Your task to perform on an android device: open app "Adobe Acrobat Reader" (install if not already installed) and enter user name: "nondescriptly@inbox.com" and password: "negating" Image 0: 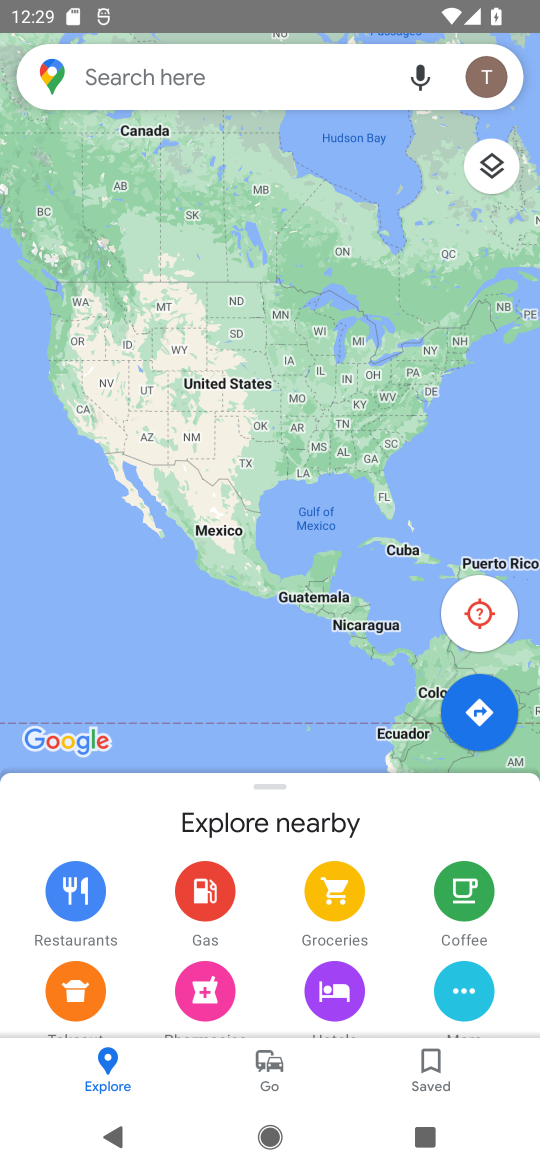
Step 0: press back button
Your task to perform on an android device: open app "Adobe Acrobat Reader" (install if not already installed) and enter user name: "nondescriptly@inbox.com" and password: "negating" Image 1: 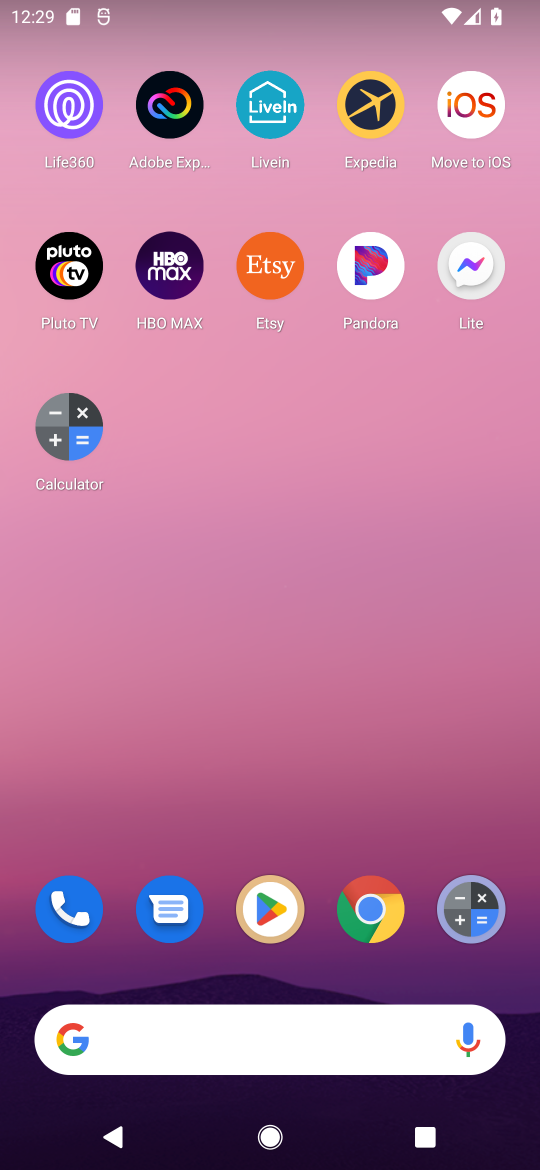
Step 1: click (258, 904)
Your task to perform on an android device: open app "Adobe Acrobat Reader" (install if not already installed) and enter user name: "nondescriptly@inbox.com" and password: "negating" Image 2: 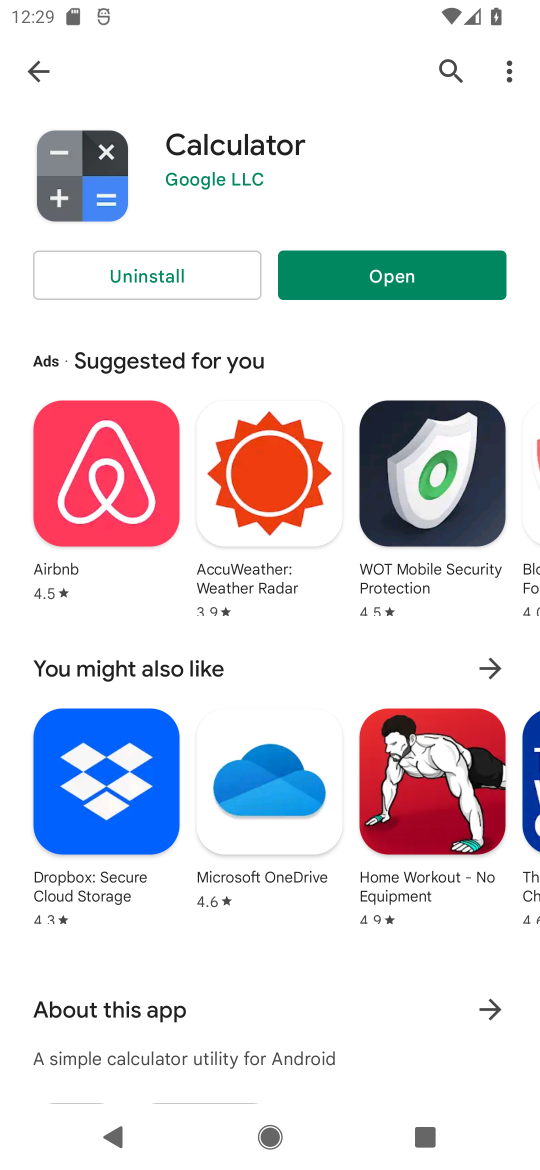
Step 2: click (451, 77)
Your task to perform on an android device: open app "Adobe Acrobat Reader" (install if not already installed) and enter user name: "nondescriptly@inbox.com" and password: "negating" Image 3: 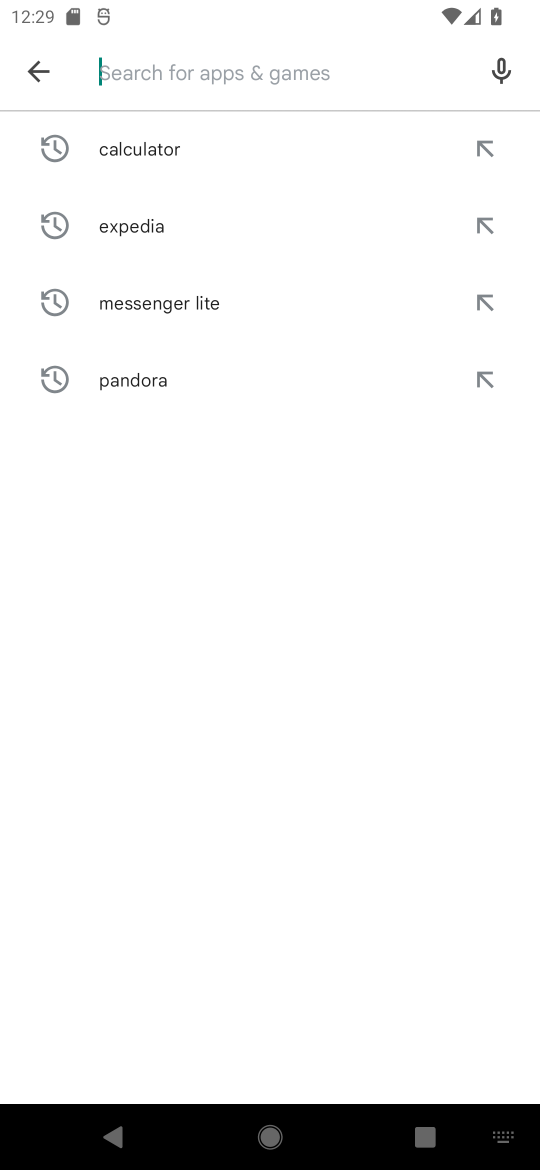
Step 3: click (166, 74)
Your task to perform on an android device: open app "Adobe Acrobat Reader" (install if not already installed) and enter user name: "nondescriptly@inbox.com" and password: "negating" Image 4: 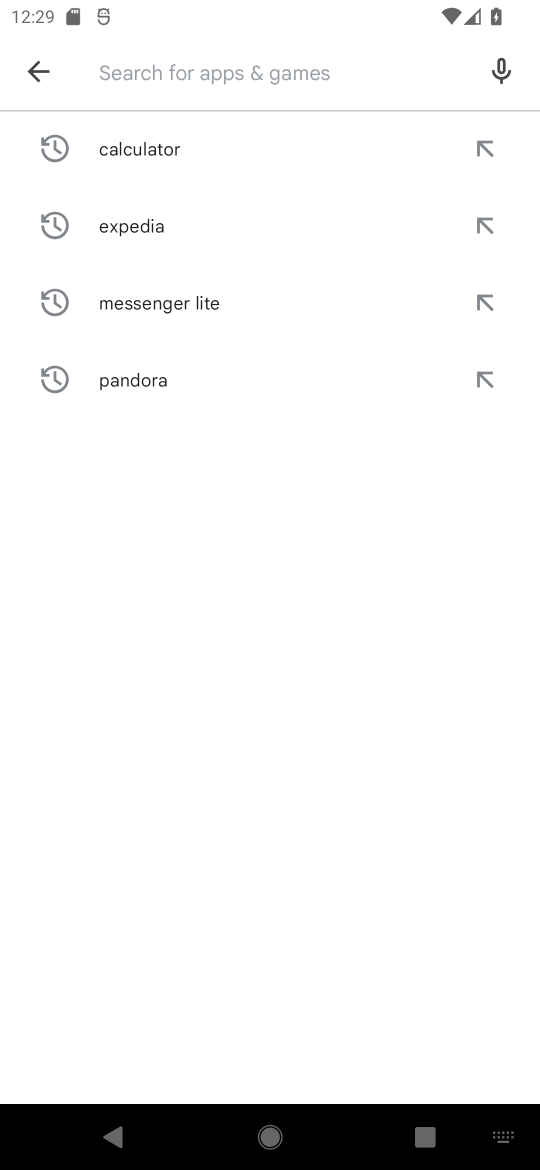
Step 4: type "Adobe Acrobat Reader"
Your task to perform on an android device: open app "Adobe Acrobat Reader" (install if not already installed) and enter user name: "nondescriptly@inbox.com" and password: "negating" Image 5: 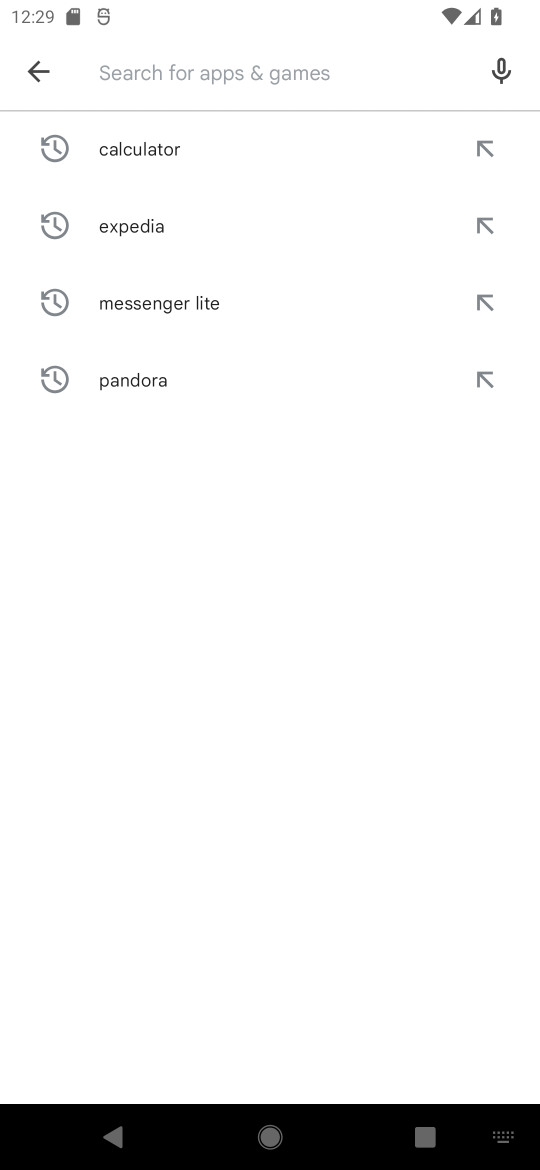
Step 5: click (281, 803)
Your task to perform on an android device: open app "Adobe Acrobat Reader" (install if not already installed) and enter user name: "nondescriptly@inbox.com" and password: "negating" Image 6: 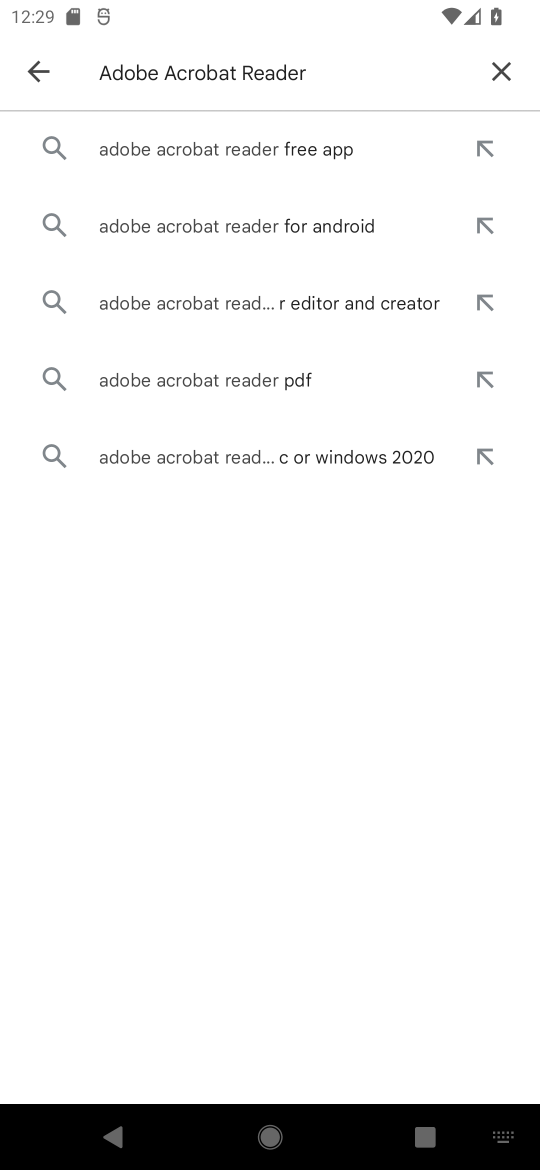
Step 6: click (247, 135)
Your task to perform on an android device: open app "Adobe Acrobat Reader" (install if not already installed) and enter user name: "nondescriptly@inbox.com" and password: "negating" Image 7: 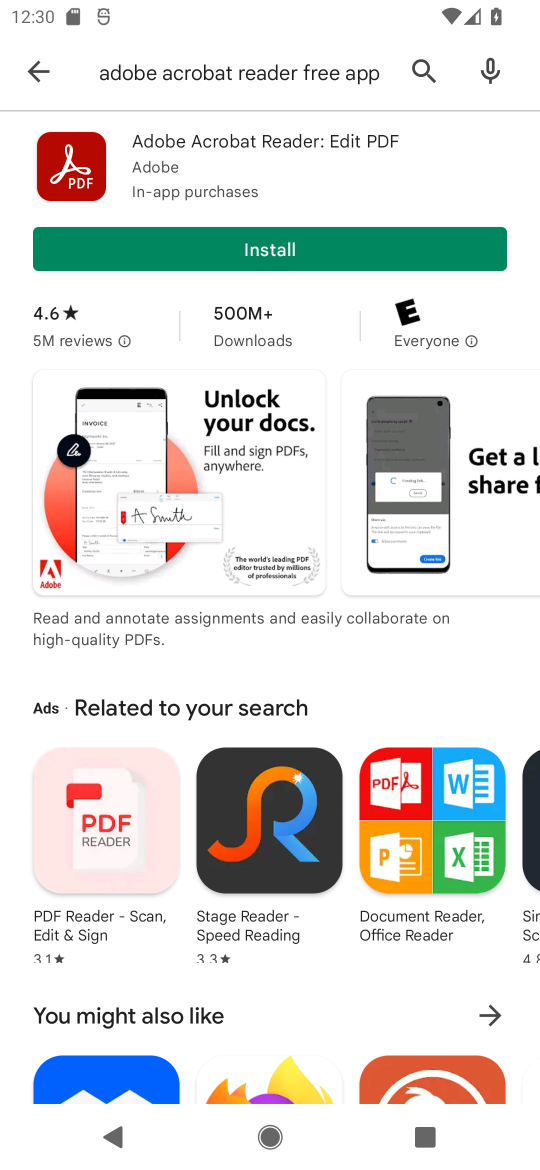
Step 7: click (291, 256)
Your task to perform on an android device: open app "Adobe Acrobat Reader" (install if not already installed) and enter user name: "nondescriptly@inbox.com" and password: "negating" Image 8: 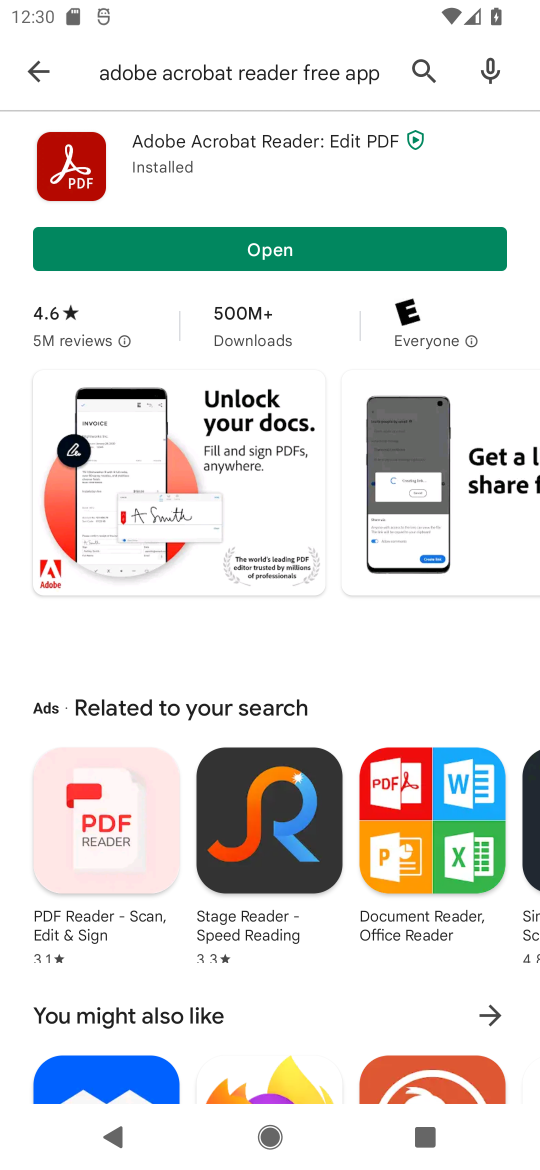
Step 8: click (308, 258)
Your task to perform on an android device: open app "Adobe Acrobat Reader" (install if not already installed) and enter user name: "nondescriptly@inbox.com" and password: "negating" Image 9: 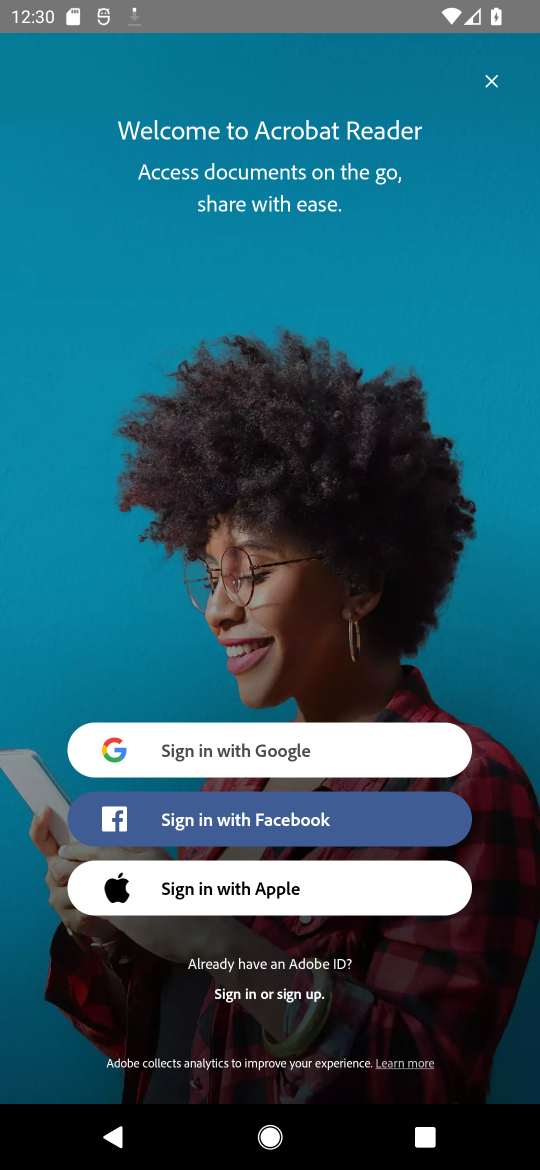
Step 9: click (233, 994)
Your task to perform on an android device: open app "Adobe Acrobat Reader" (install if not already installed) and enter user name: "nondescriptly@inbox.com" and password: "negating" Image 10: 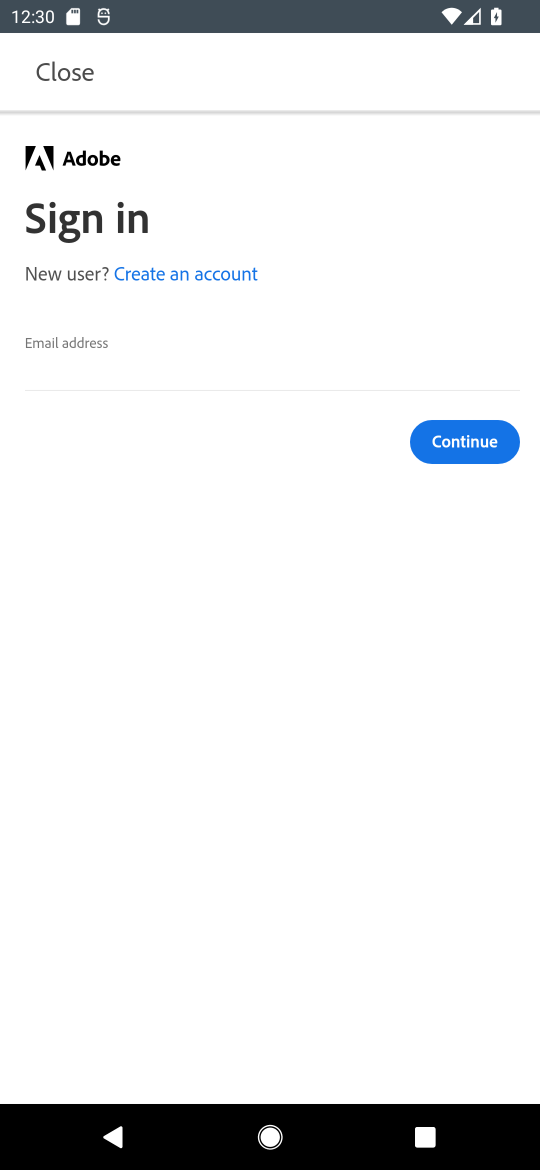
Step 10: click (86, 359)
Your task to perform on an android device: open app "Adobe Acrobat Reader" (install if not already installed) and enter user name: "nondescriptly@inbox.com" and password: "negating" Image 11: 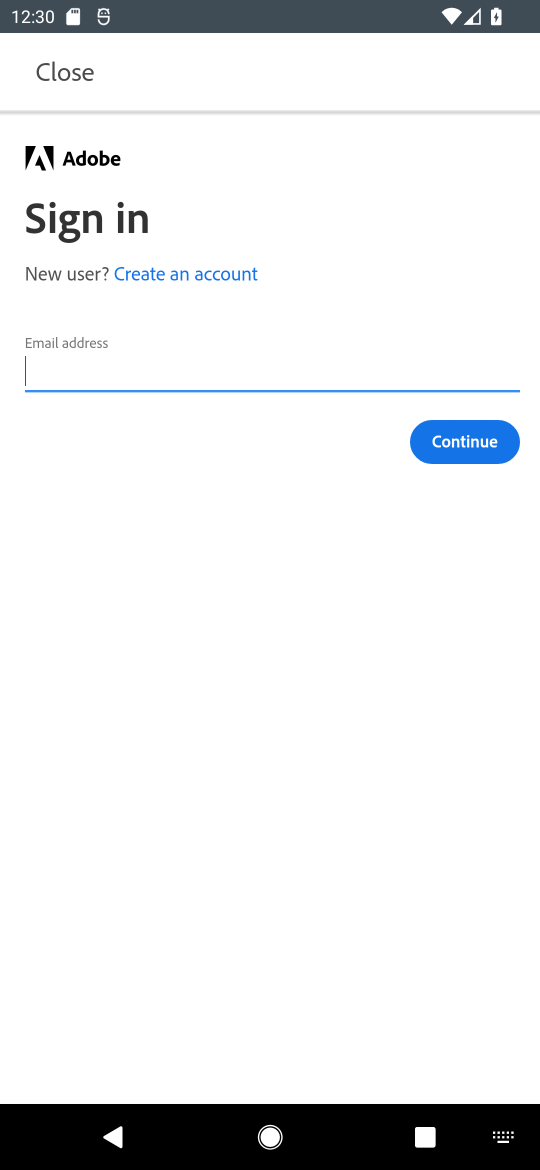
Step 11: type "nondescriptly@inbox.com"
Your task to perform on an android device: open app "Adobe Acrobat Reader" (install if not already installed) and enter user name: "nondescriptly@inbox.com" and password: "negating" Image 12: 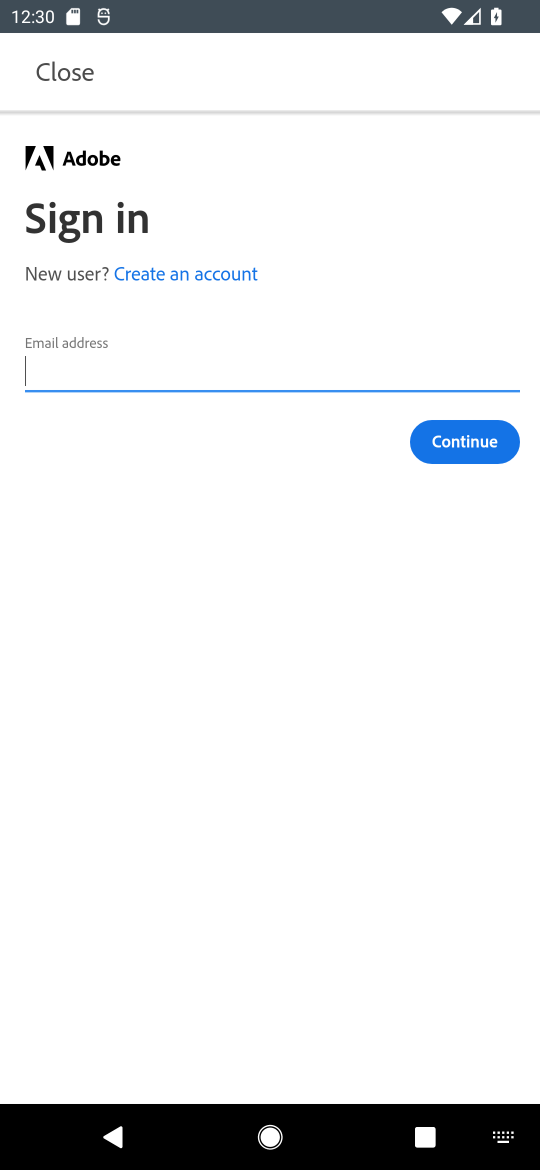
Step 12: click (284, 789)
Your task to perform on an android device: open app "Adobe Acrobat Reader" (install if not already installed) and enter user name: "nondescriptly@inbox.com" and password: "negating" Image 13: 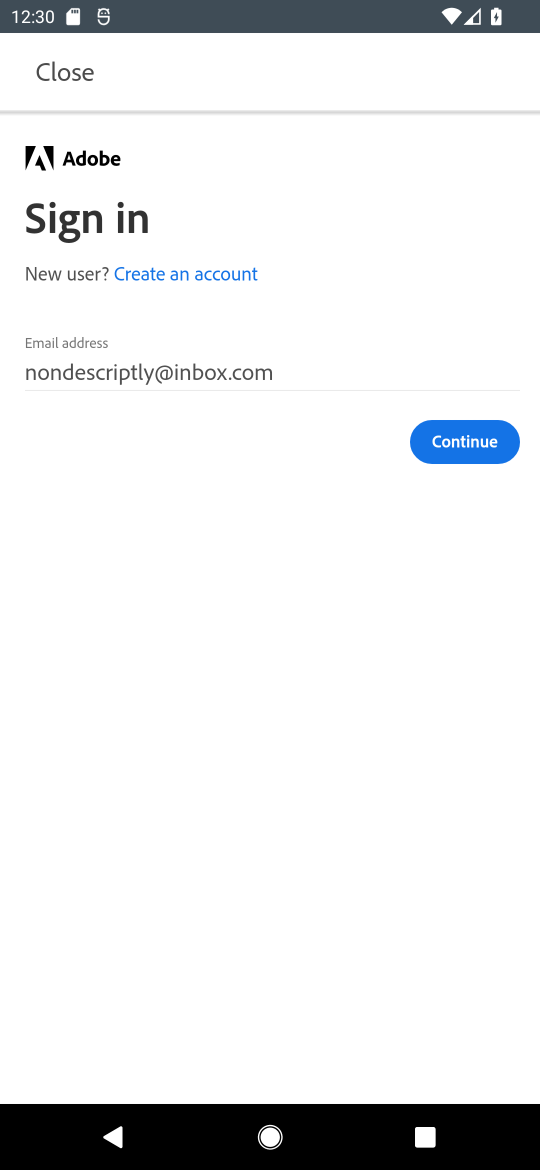
Step 13: click (458, 437)
Your task to perform on an android device: open app "Adobe Acrobat Reader" (install if not already installed) and enter user name: "nondescriptly@inbox.com" and password: "negating" Image 14: 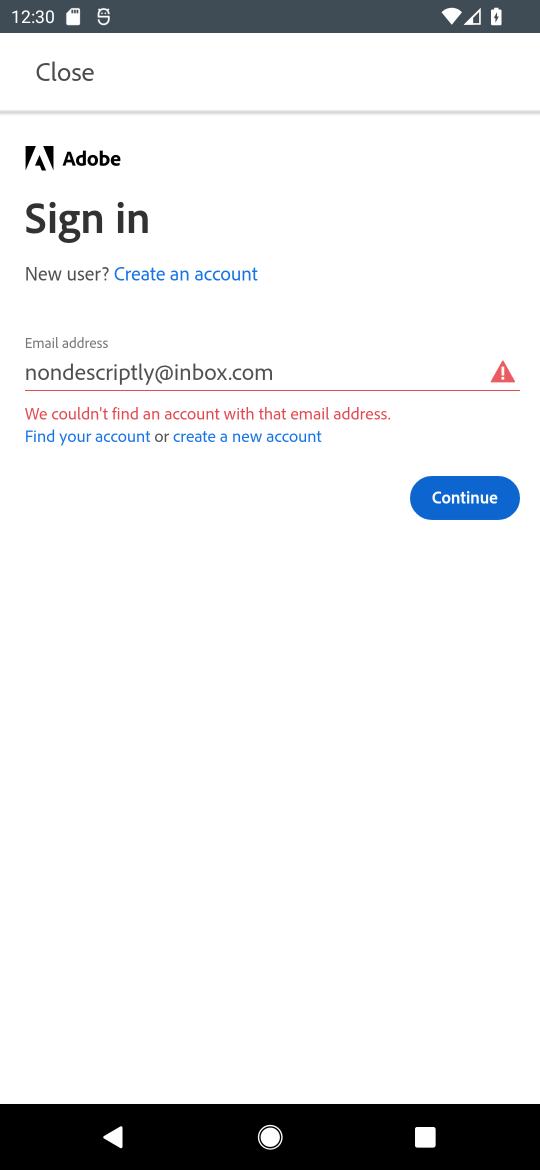
Step 14: task complete